Your task to perform on an android device: Search for vegetarian restaurants on Maps Image 0: 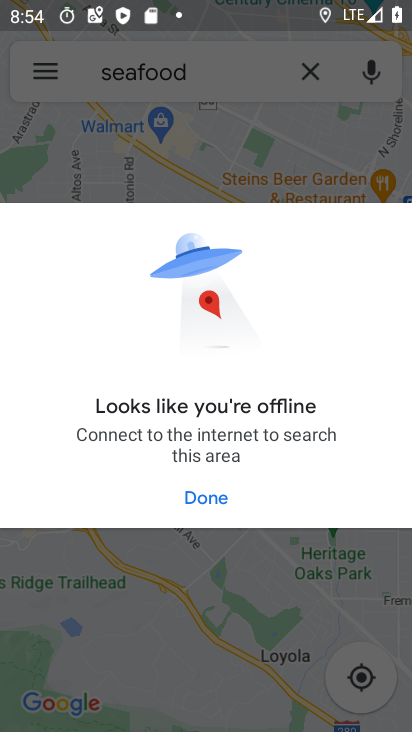
Step 0: drag from (241, 540) to (309, 190)
Your task to perform on an android device: Search for vegetarian restaurants on Maps Image 1: 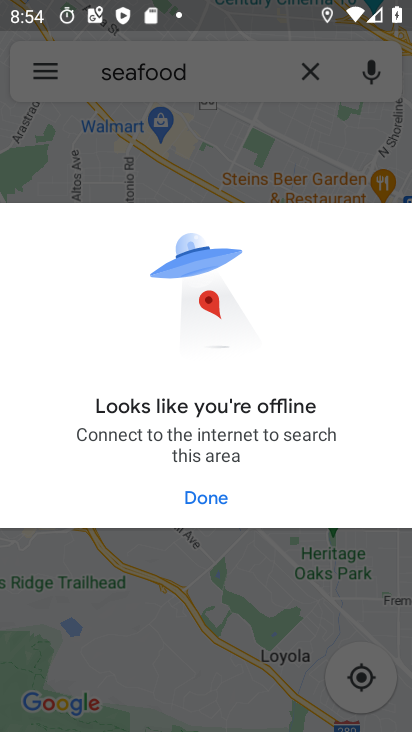
Step 1: click (205, 483)
Your task to perform on an android device: Search for vegetarian restaurants on Maps Image 2: 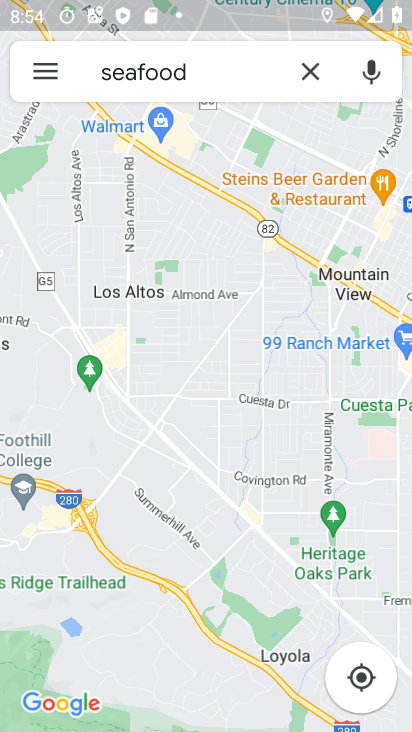
Step 2: click (170, 84)
Your task to perform on an android device: Search for vegetarian restaurants on Maps Image 3: 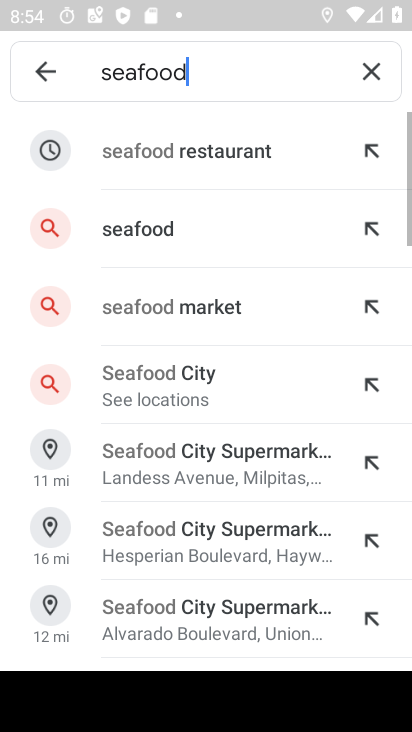
Step 3: click (372, 63)
Your task to perform on an android device: Search for vegetarian restaurants on Maps Image 4: 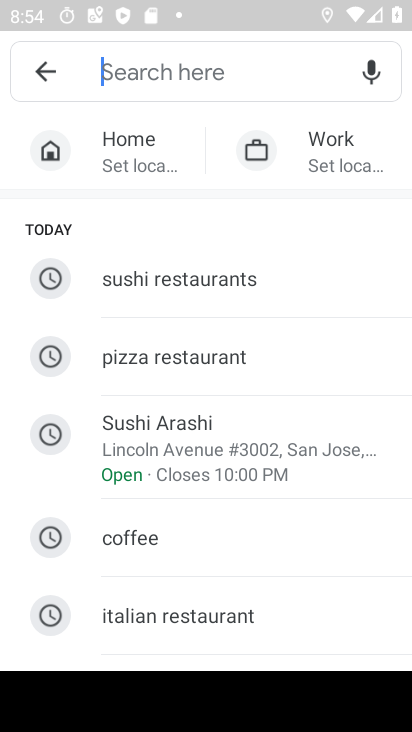
Step 4: click (233, 237)
Your task to perform on an android device: Search for vegetarian restaurants on Maps Image 5: 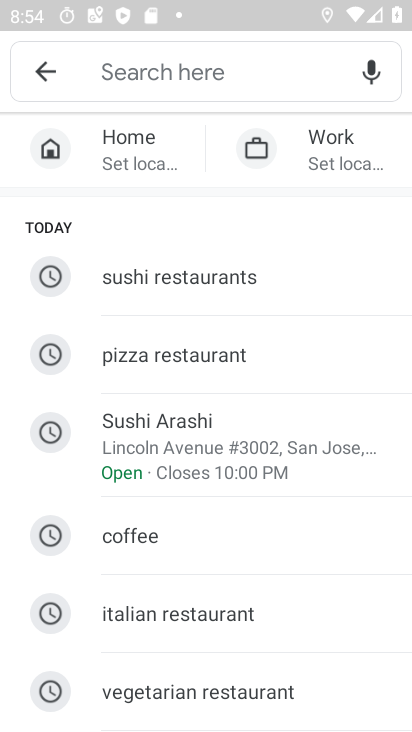
Step 5: click (232, 254)
Your task to perform on an android device: Search for vegetarian restaurants on Maps Image 6: 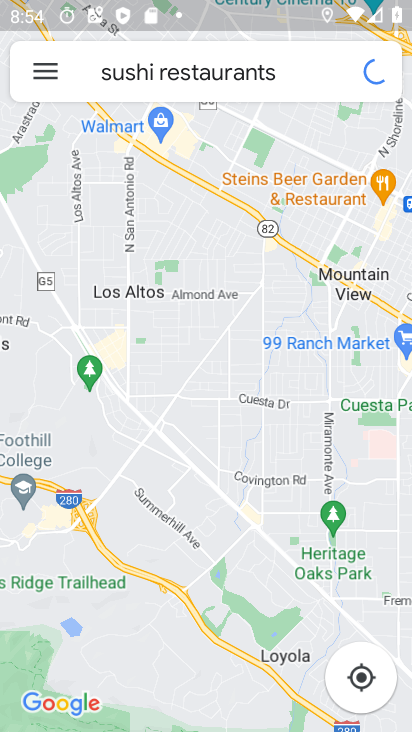
Step 6: drag from (189, 712) to (268, 305)
Your task to perform on an android device: Search for vegetarian restaurants on Maps Image 7: 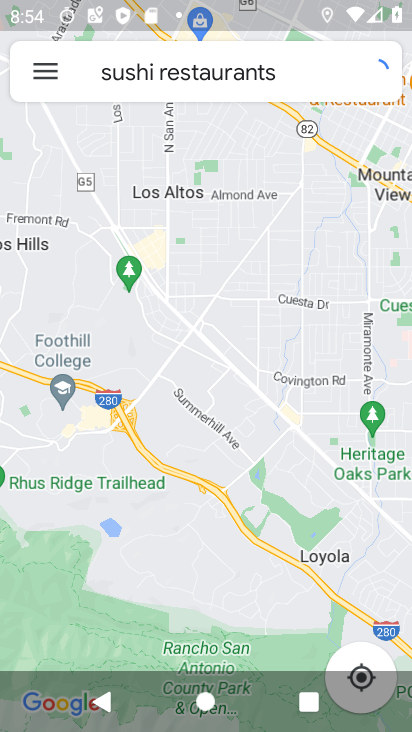
Step 7: click (283, 72)
Your task to perform on an android device: Search for vegetarian restaurants on Maps Image 8: 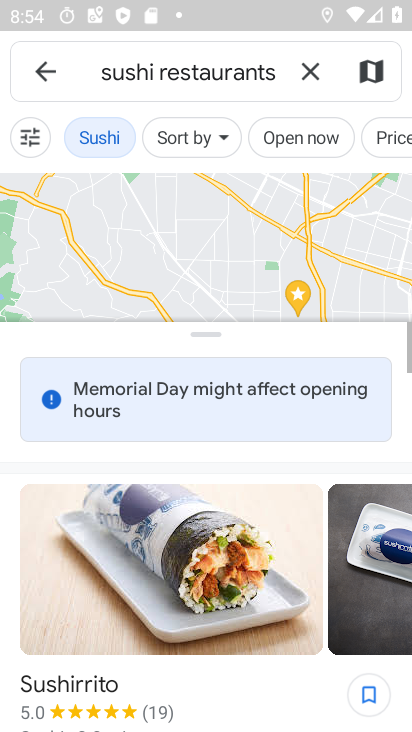
Step 8: click (321, 70)
Your task to perform on an android device: Search for vegetarian restaurants on Maps Image 9: 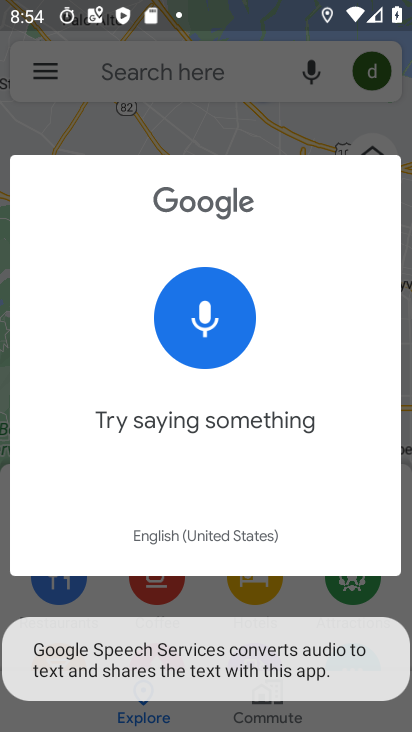
Step 9: press back button
Your task to perform on an android device: Search for vegetarian restaurants on Maps Image 10: 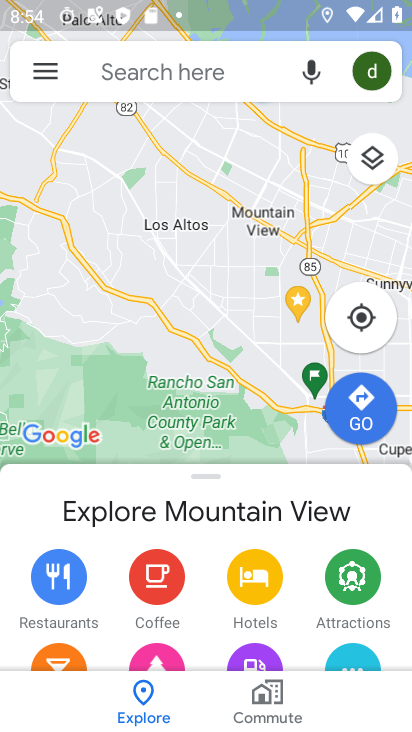
Step 10: click (102, 80)
Your task to perform on an android device: Search for vegetarian restaurants on Maps Image 11: 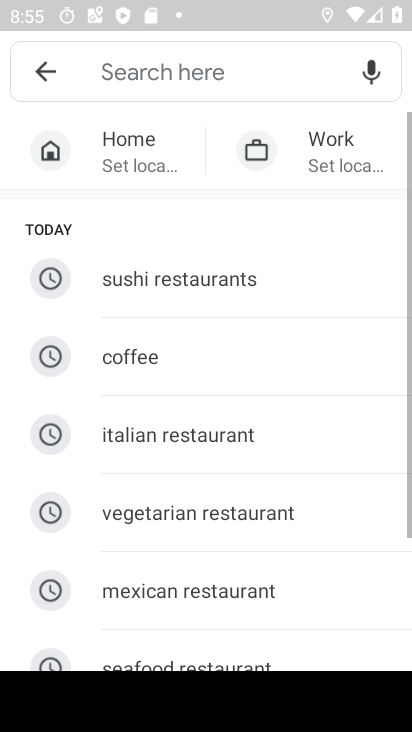
Step 11: drag from (196, 555) to (232, 345)
Your task to perform on an android device: Search for vegetarian restaurants on Maps Image 12: 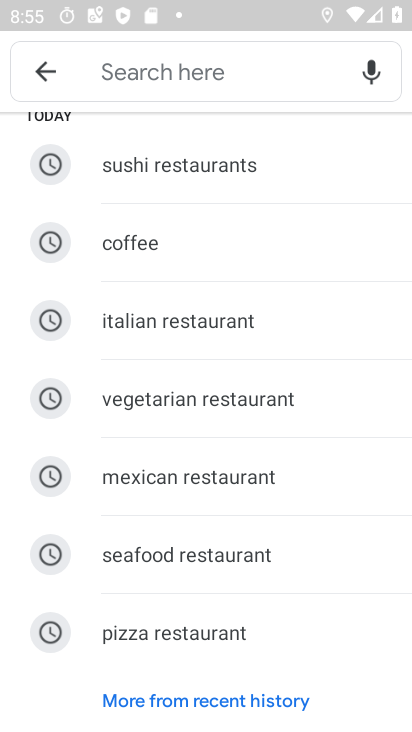
Step 12: click (175, 411)
Your task to perform on an android device: Search for vegetarian restaurants on Maps Image 13: 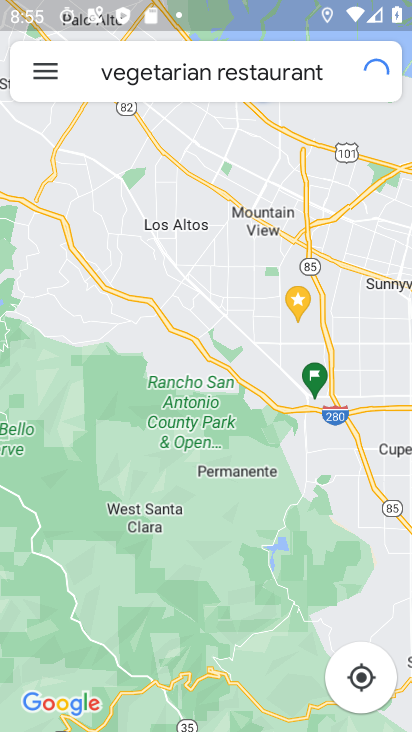
Step 13: task complete